Your task to perform on an android device: toggle pop-ups in chrome Image 0: 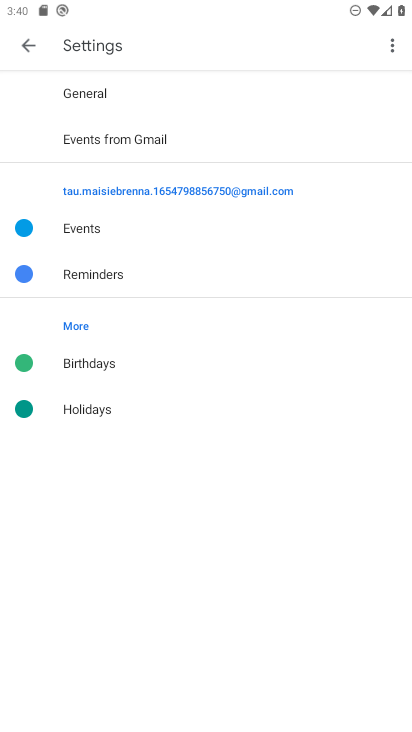
Step 0: press home button
Your task to perform on an android device: toggle pop-ups in chrome Image 1: 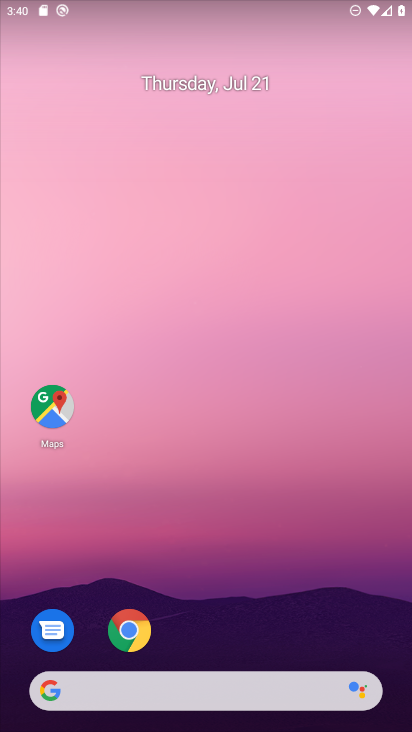
Step 1: click (128, 620)
Your task to perform on an android device: toggle pop-ups in chrome Image 2: 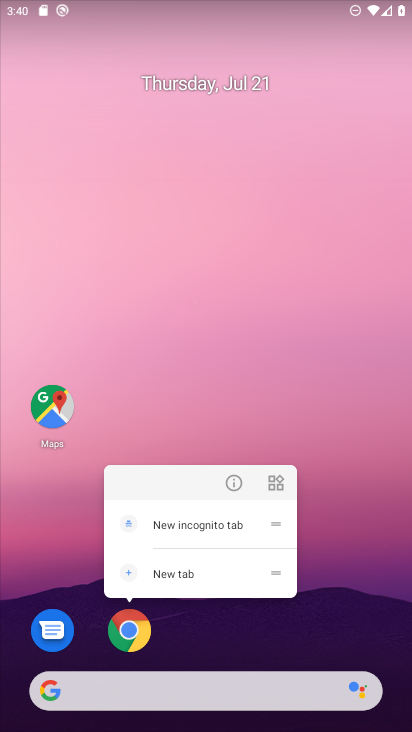
Step 2: click (128, 631)
Your task to perform on an android device: toggle pop-ups in chrome Image 3: 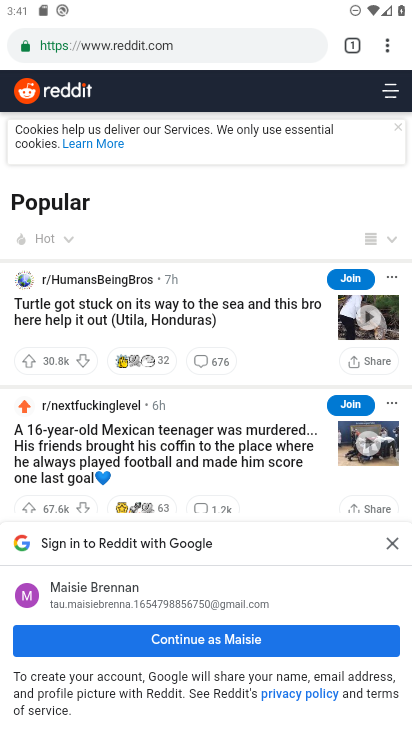
Step 3: click (384, 43)
Your task to perform on an android device: toggle pop-ups in chrome Image 4: 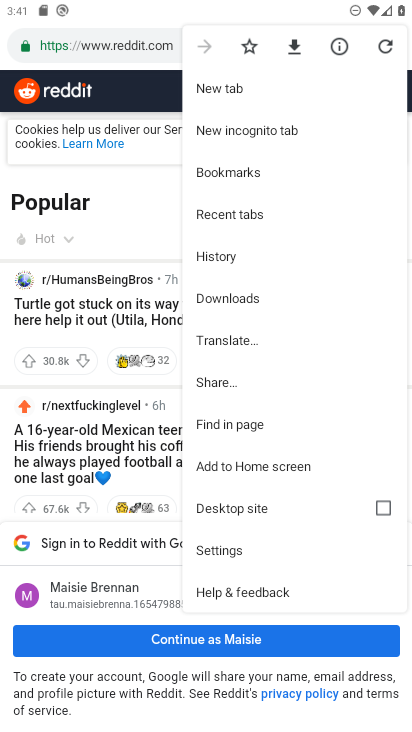
Step 4: click (228, 557)
Your task to perform on an android device: toggle pop-ups in chrome Image 5: 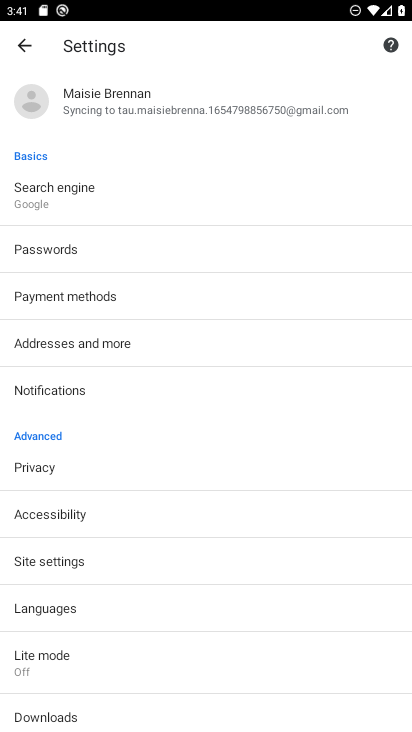
Step 5: click (62, 560)
Your task to perform on an android device: toggle pop-ups in chrome Image 6: 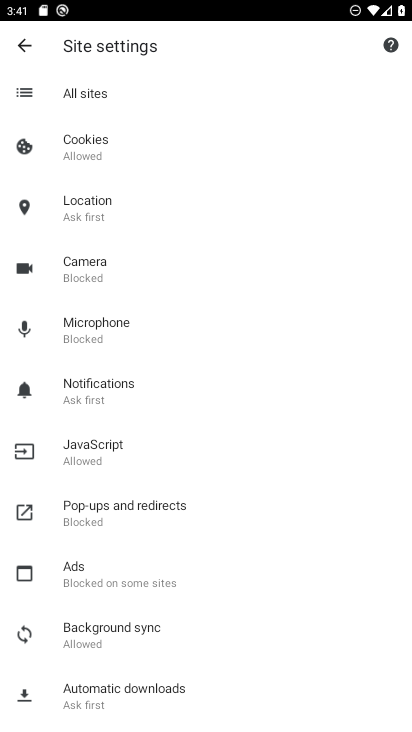
Step 6: click (89, 514)
Your task to perform on an android device: toggle pop-ups in chrome Image 7: 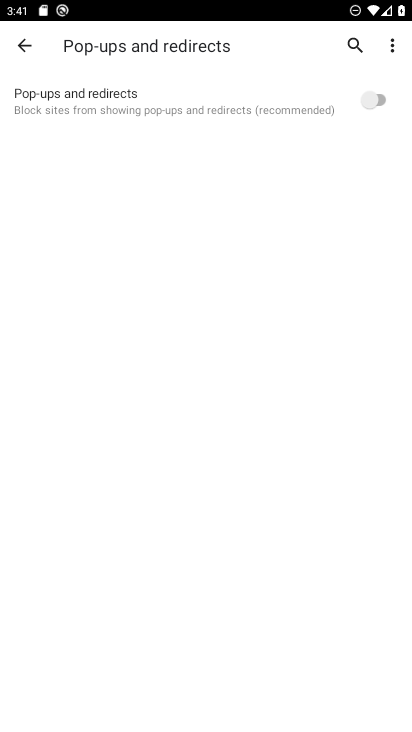
Step 7: click (368, 98)
Your task to perform on an android device: toggle pop-ups in chrome Image 8: 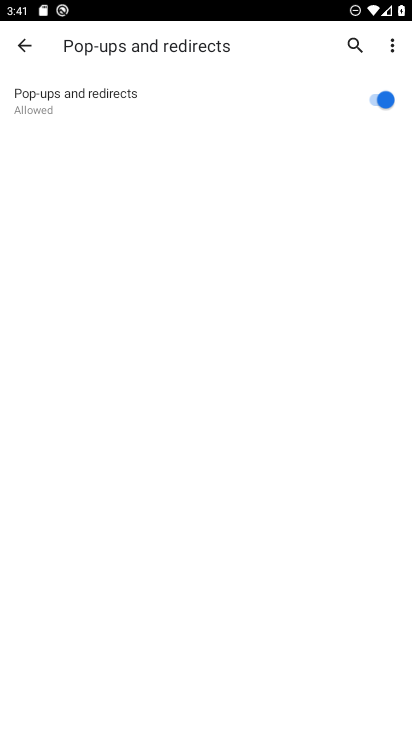
Step 8: task complete